Your task to perform on an android device: turn off wifi Image 0: 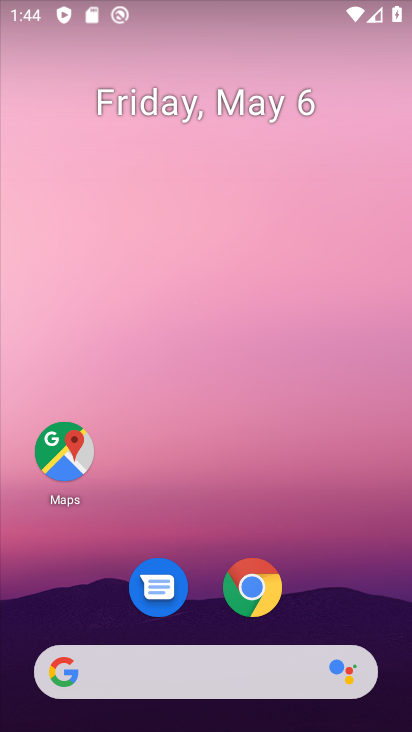
Step 0: click (372, 60)
Your task to perform on an android device: turn off wifi Image 1: 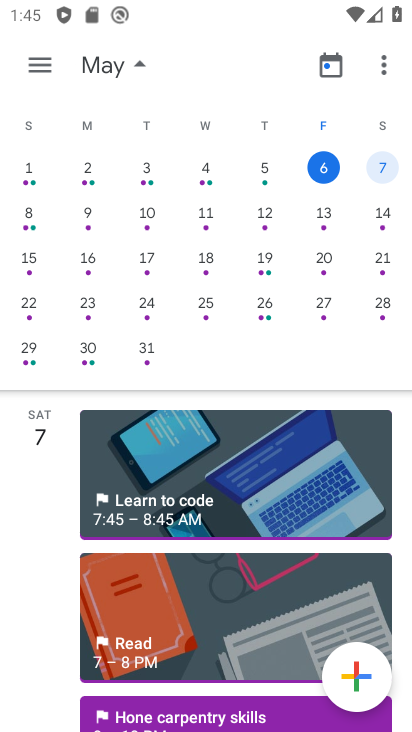
Step 1: press home button
Your task to perform on an android device: turn off wifi Image 2: 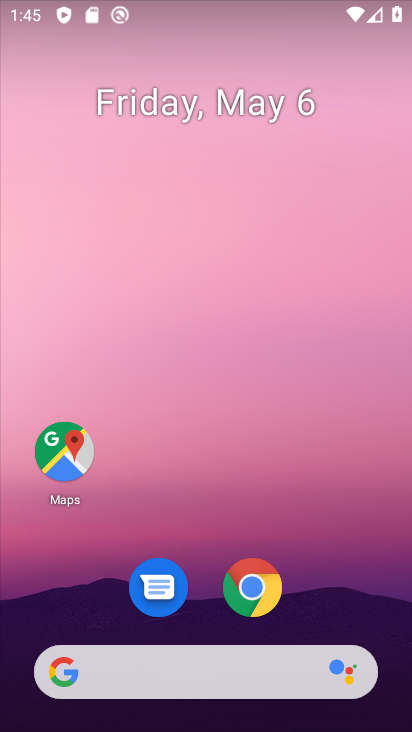
Step 2: drag from (388, 570) to (363, 17)
Your task to perform on an android device: turn off wifi Image 3: 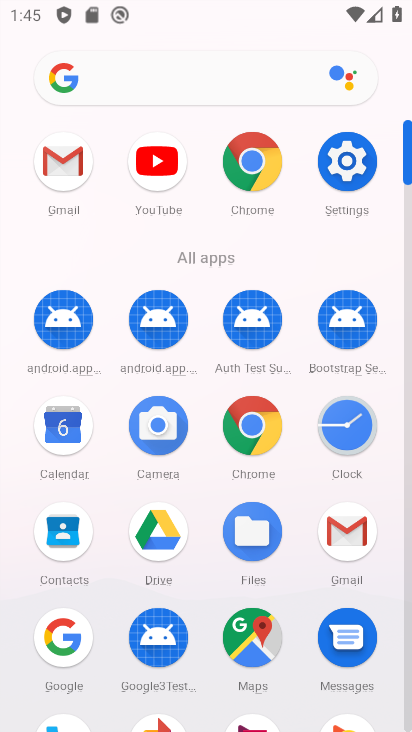
Step 3: click (325, 163)
Your task to perform on an android device: turn off wifi Image 4: 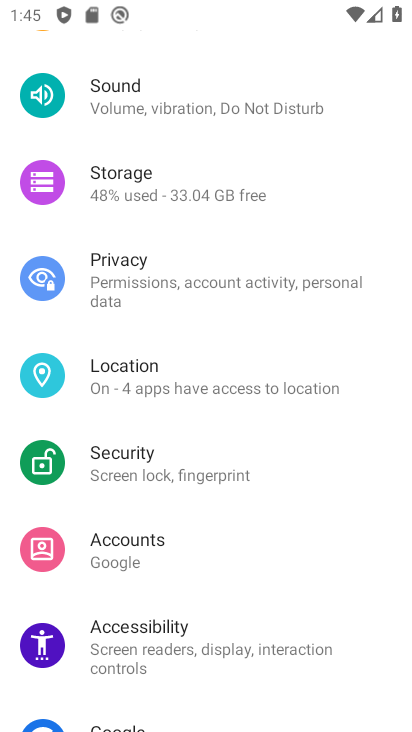
Step 4: drag from (235, 282) to (221, 665)
Your task to perform on an android device: turn off wifi Image 5: 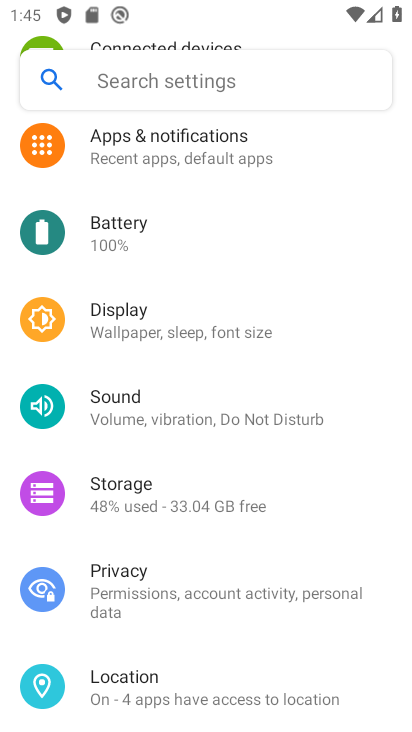
Step 5: drag from (167, 183) to (134, 583)
Your task to perform on an android device: turn off wifi Image 6: 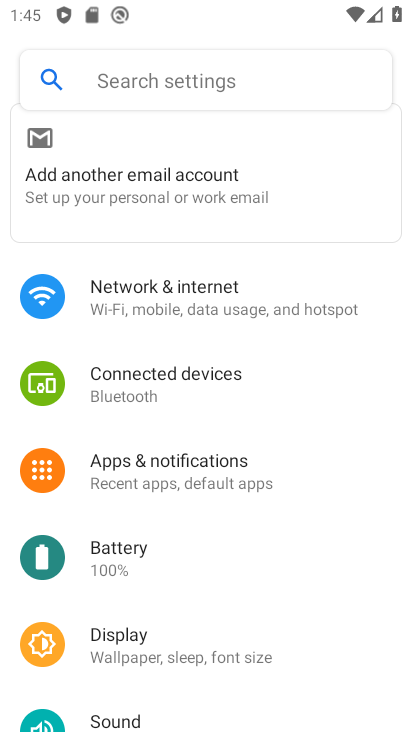
Step 6: drag from (198, 297) to (162, 595)
Your task to perform on an android device: turn off wifi Image 7: 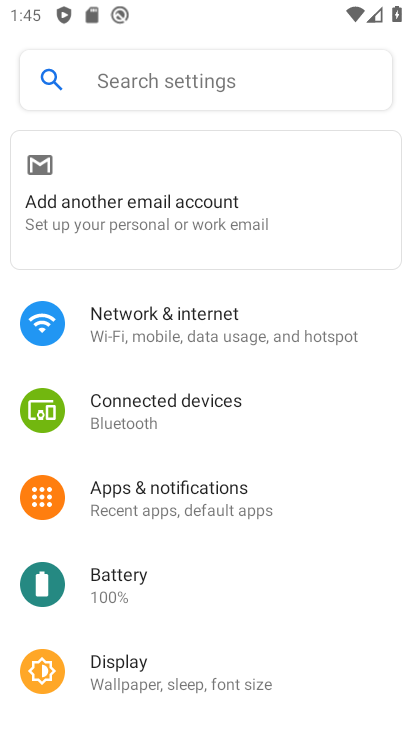
Step 7: click (147, 336)
Your task to perform on an android device: turn off wifi Image 8: 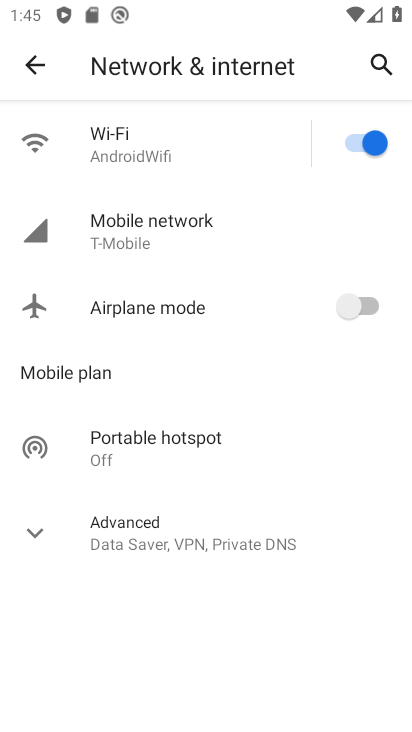
Step 8: click (351, 139)
Your task to perform on an android device: turn off wifi Image 9: 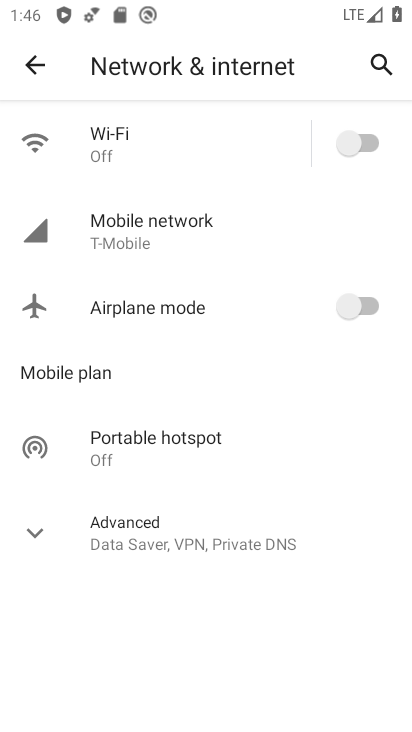
Step 9: task complete